Your task to perform on an android device: Open my contact list Image 0: 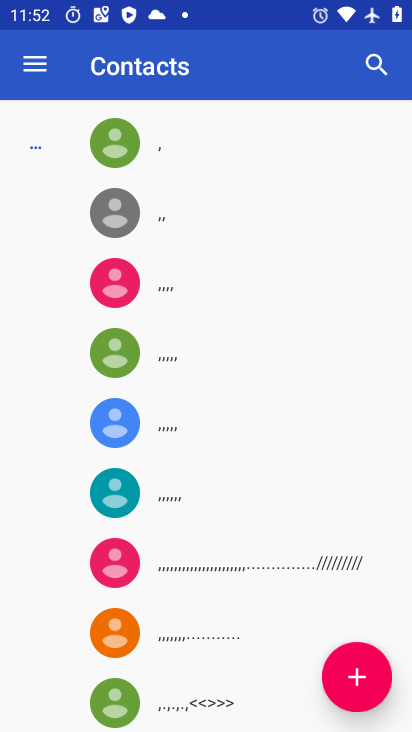
Step 0: press home button
Your task to perform on an android device: Open my contact list Image 1: 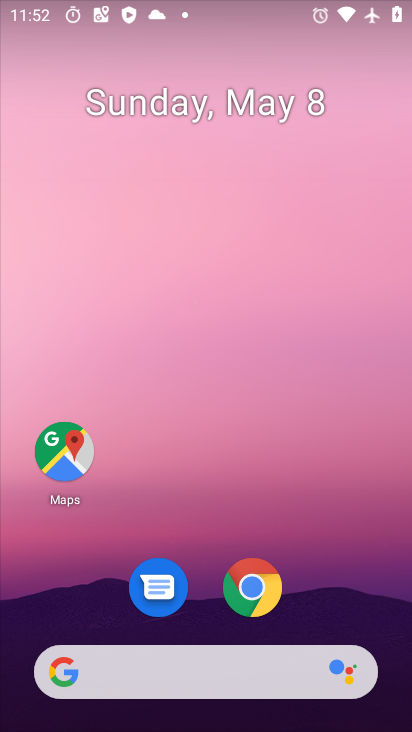
Step 1: drag from (282, 573) to (143, 101)
Your task to perform on an android device: Open my contact list Image 2: 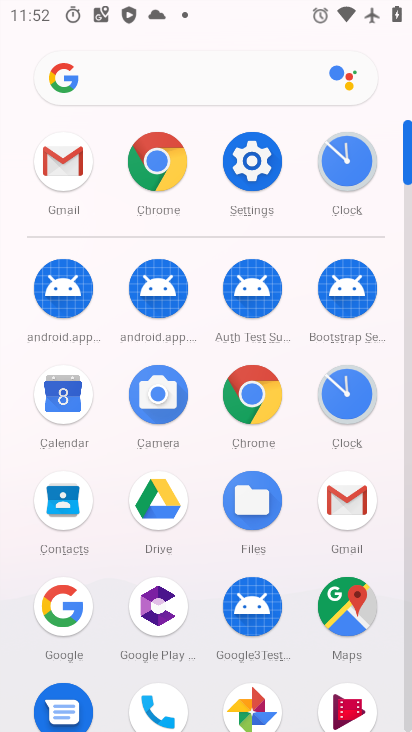
Step 2: click (62, 521)
Your task to perform on an android device: Open my contact list Image 3: 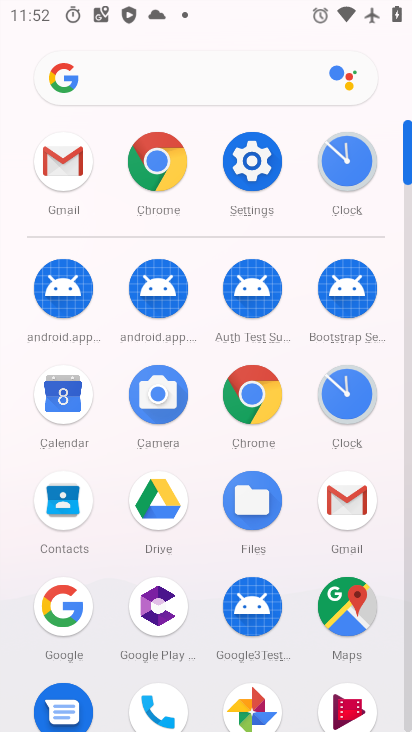
Step 3: click (63, 520)
Your task to perform on an android device: Open my contact list Image 4: 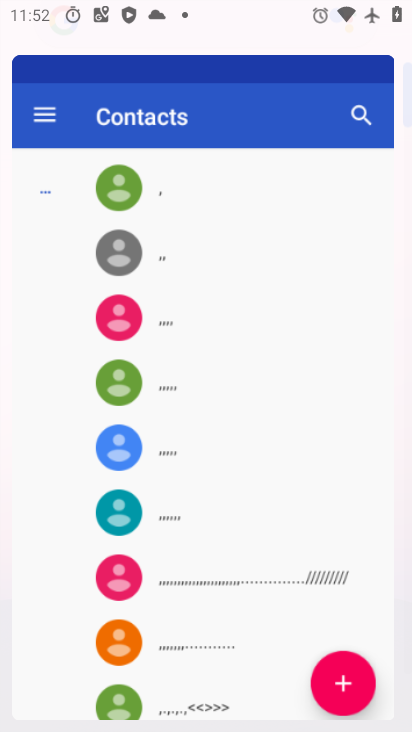
Step 4: click (65, 519)
Your task to perform on an android device: Open my contact list Image 5: 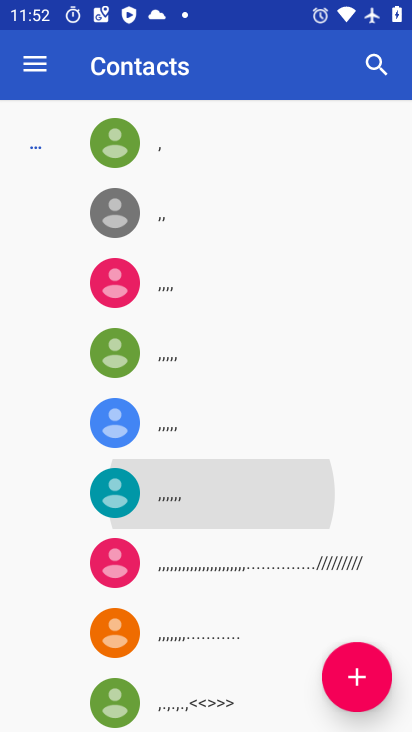
Step 5: click (73, 509)
Your task to perform on an android device: Open my contact list Image 6: 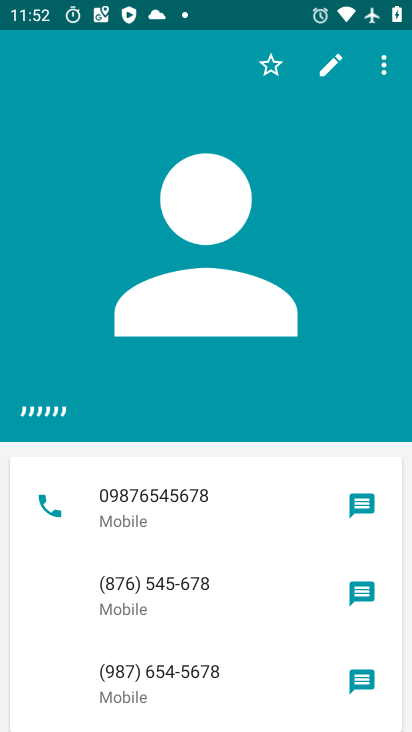
Step 6: task complete